Your task to perform on an android device: Open the calendar app, open the side menu, and click the "Day" option Image 0: 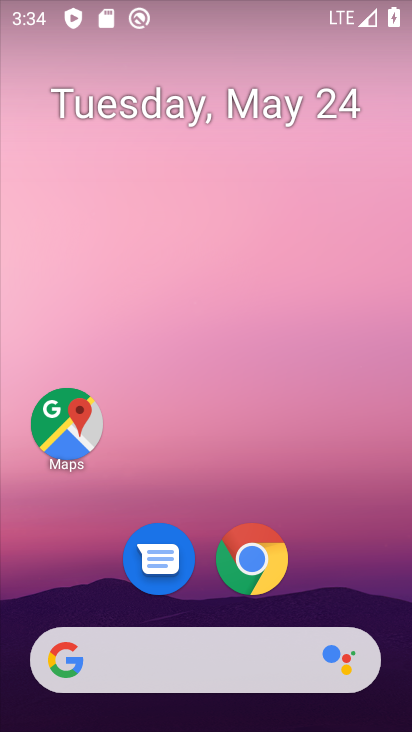
Step 0: drag from (318, 580) to (280, 139)
Your task to perform on an android device: Open the calendar app, open the side menu, and click the "Day" option Image 1: 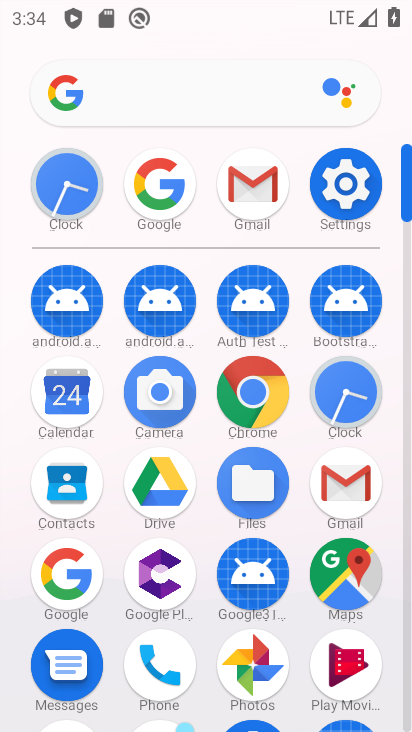
Step 1: click (66, 401)
Your task to perform on an android device: Open the calendar app, open the side menu, and click the "Day" option Image 2: 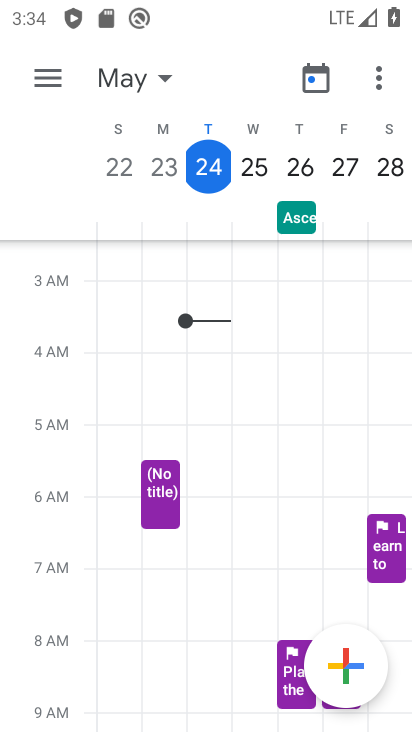
Step 2: click (34, 73)
Your task to perform on an android device: Open the calendar app, open the side menu, and click the "Day" option Image 3: 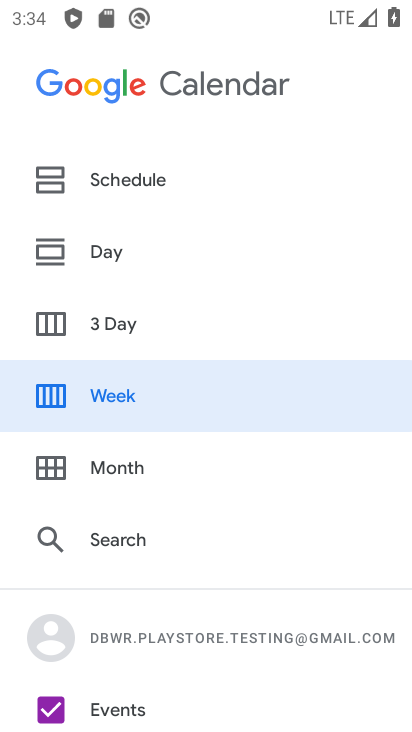
Step 3: click (112, 255)
Your task to perform on an android device: Open the calendar app, open the side menu, and click the "Day" option Image 4: 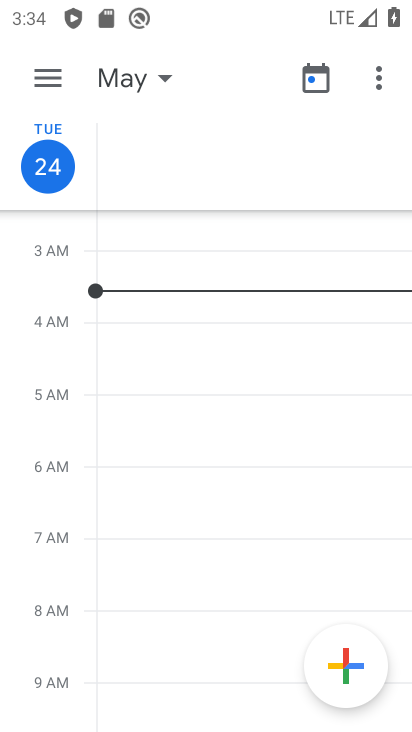
Step 4: task complete